Your task to perform on an android device: Open sound settings Image 0: 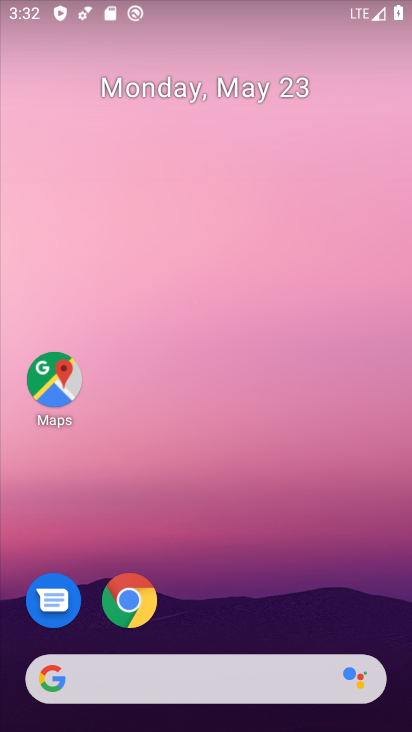
Step 0: drag from (244, 631) to (241, 30)
Your task to perform on an android device: Open sound settings Image 1: 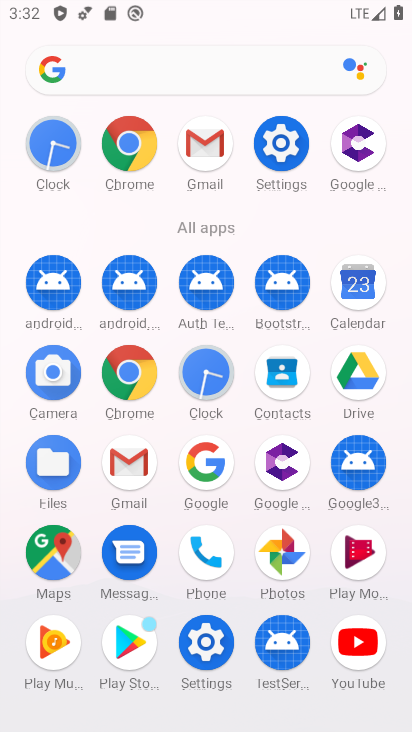
Step 1: click (277, 154)
Your task to perform on an android device: Open sound settings Image 2: 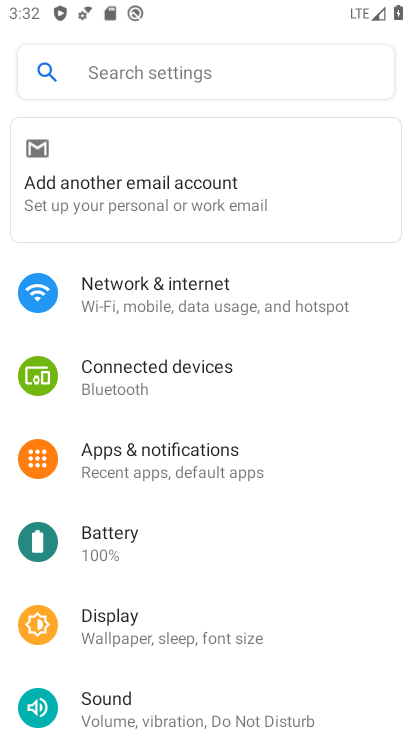
Step 2: drag from (310, 570) to (295, 210)
Your task to perform on an android device: Open sound settings Image 3: 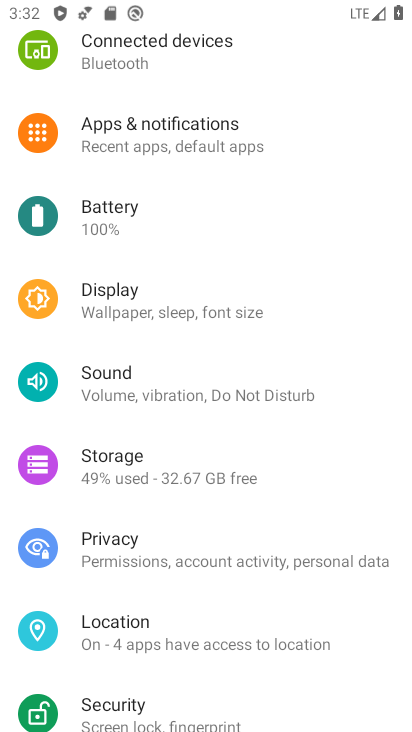
Step 3: click (103, 388)
Your task to perform on an android device: Open sound settings Image 4: 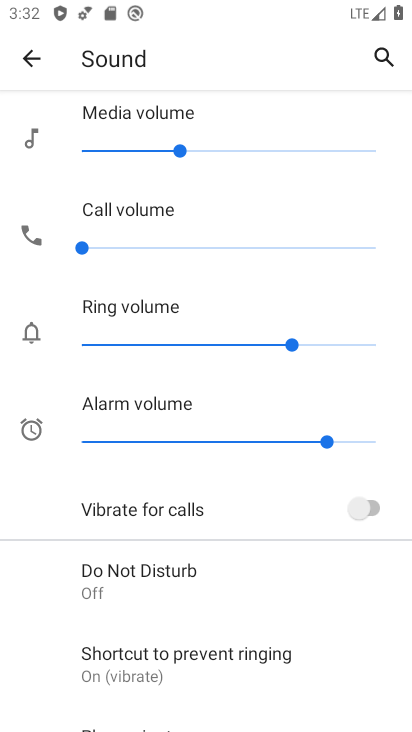
Step 4: task complete